Your task to perform on an android device: Play the last video I watched on Youtube Image 0: 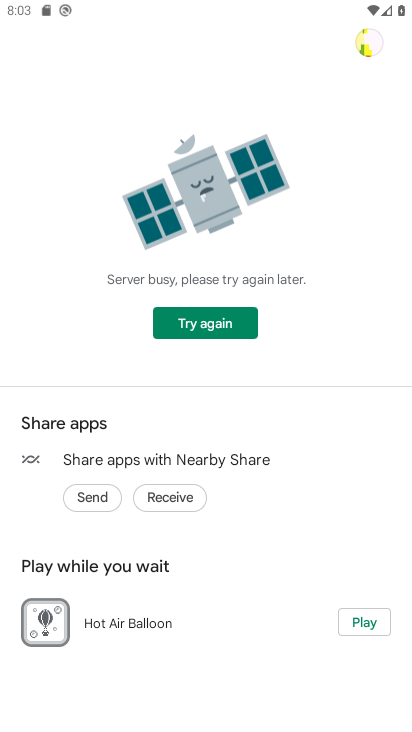
Step 0: press home button
Your task to perform on an android device: Play the last video I watched on Youtube Image 1: 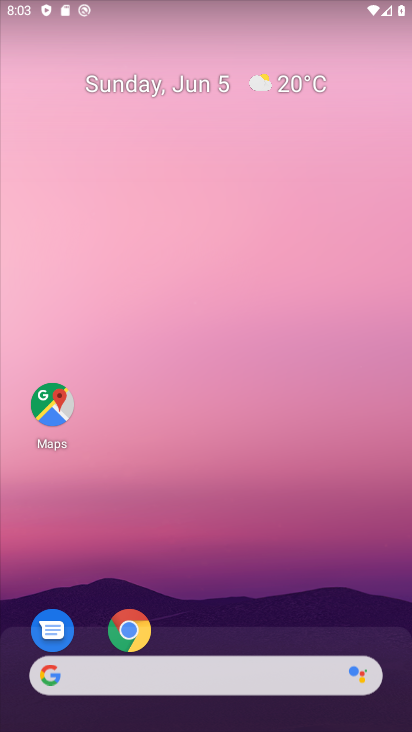
Step 1: drag from (279, 551) to (186, 40)
Your task to perform on an android device: Play the last video I watched on Youtube Image 2: 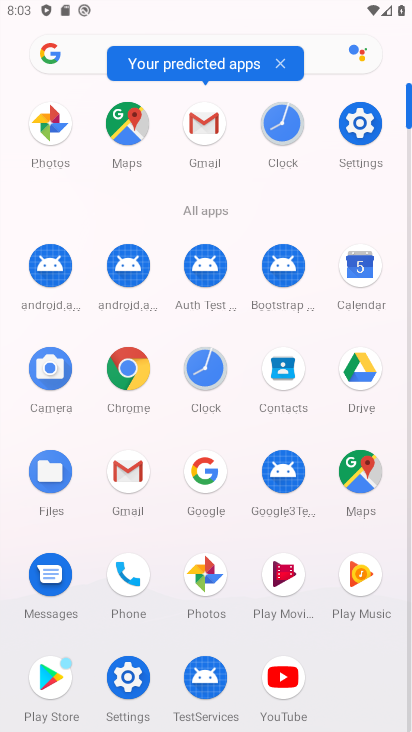
Step 2: click (287, 678)
Your task to perform on an android device: Play the last video I watched on Youtube Image 3: 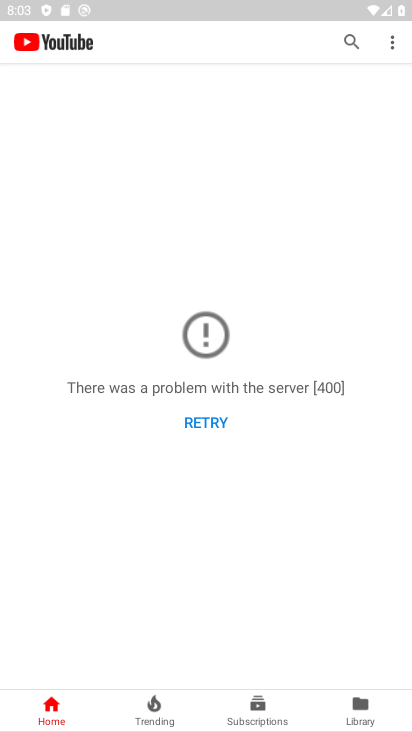
Step 3: click (209, 424)
Your task to perform on an android device: Play the last video I watched on Youtube Image 4: 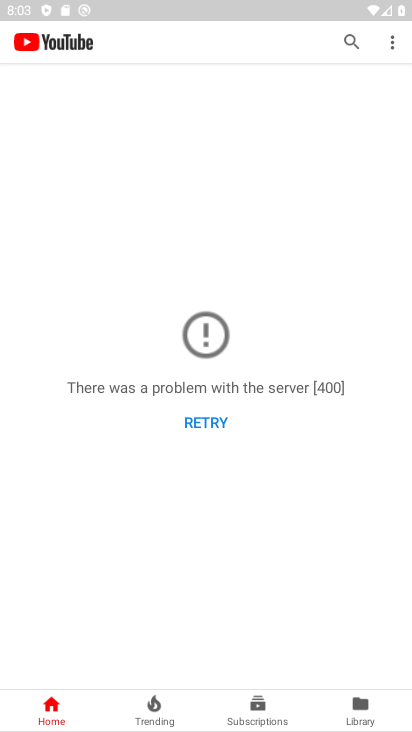
Step 4: click (366, 711)
Your task to perform on an android device: Play the last video I watched on Youtube Image 5: 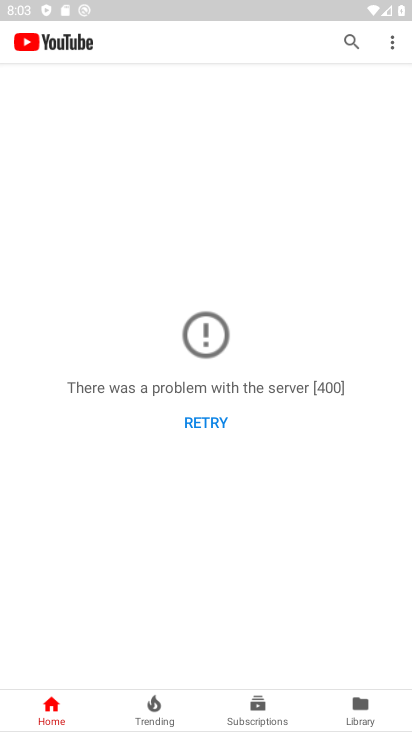
Step 5: click (366, 711)
Your task to perform on an android device: Play the last video I watched on Youtube Image 6: 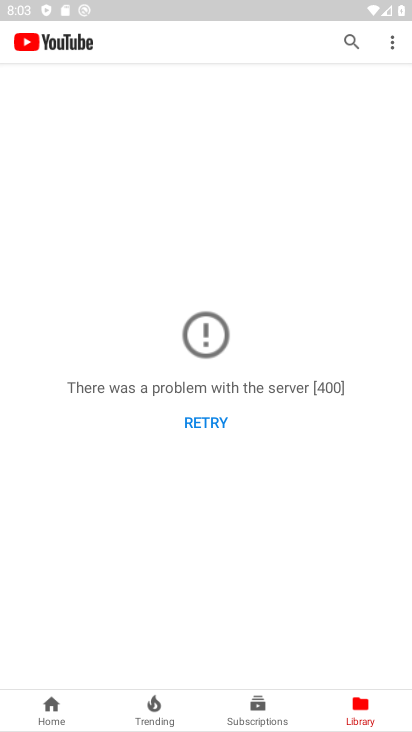
Step 6: task complete